Your task to perform on an android device: Go to Amazon Image 0: 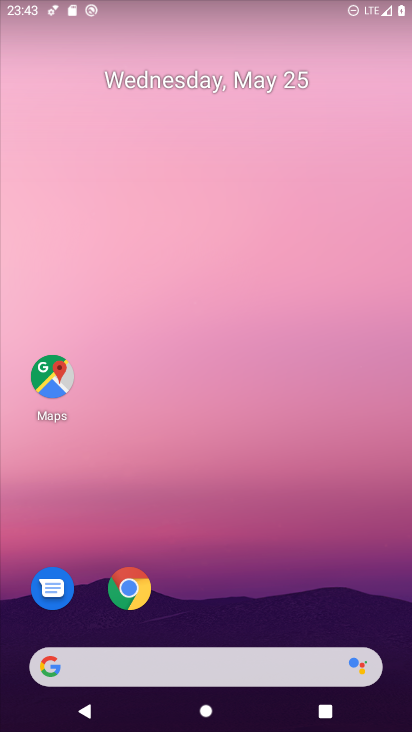
Step 0: click (127, 582)
Your task to perform on an android device: Go to Amazon Image 1: 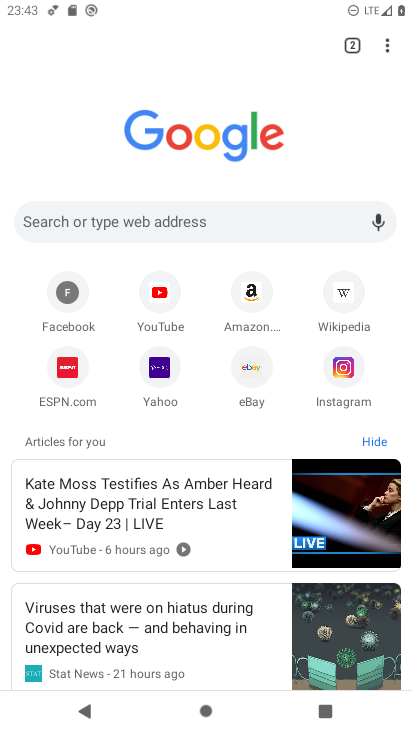
Step 1: click (252, 293)
Your task to perform on an android device: Go to Amazon Image 2: 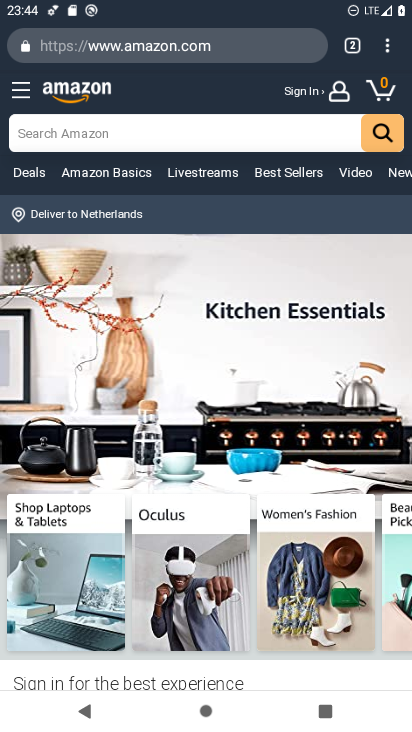
Step 2: task complete